Your task to perform on an android device: Open eBay Image 0: 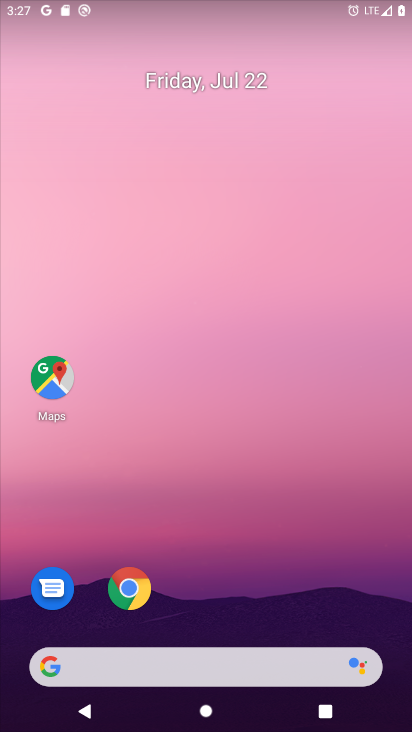
Step 0: drag from (234, 577) to (205, 5)
Your task to perform on an android device: Open eBay Image 1: 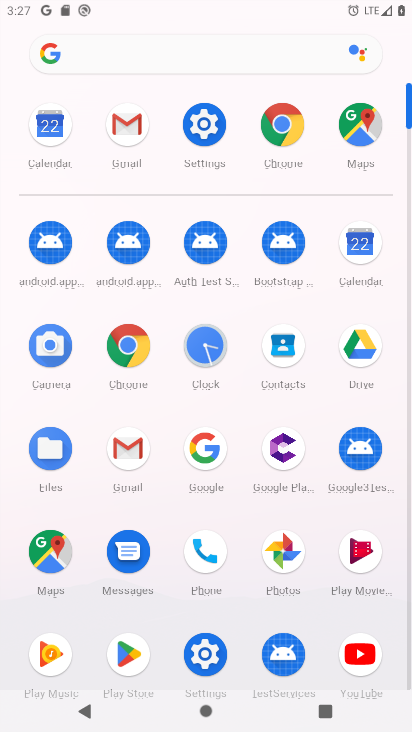
Step 1: click (127, 342)
Your task to perform on an android device: Open eBay Image 2: 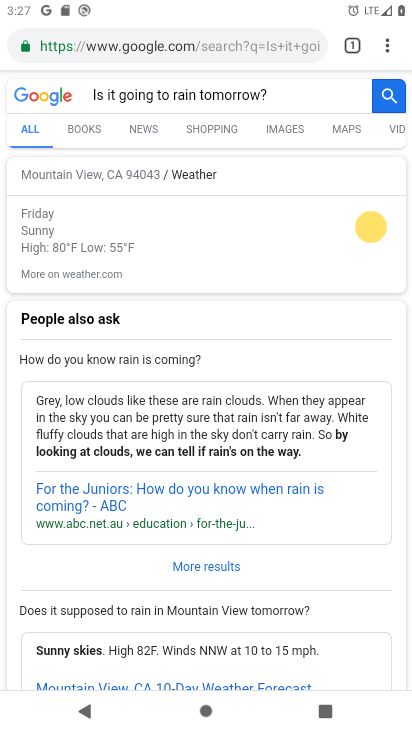
Step 2: click (130, 39)
Your task to perform on an android device: Open eBay Image 3: 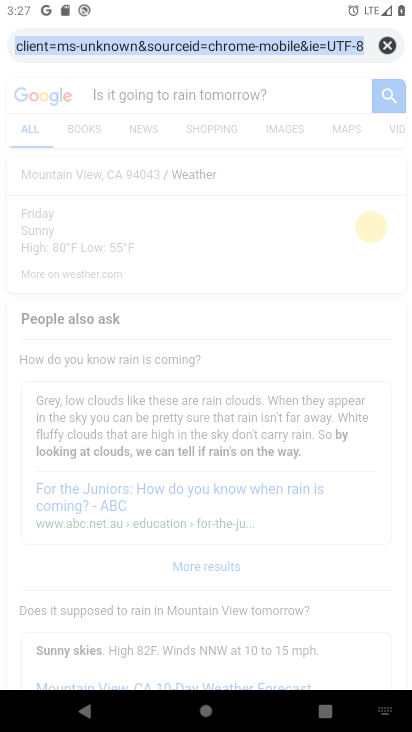
Step 3: click (388, 45)
Your task to perform on an android device: Open eBay Image 4: 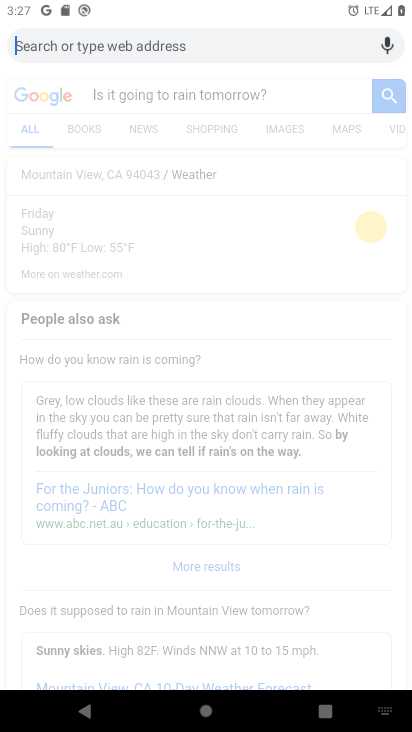
Step 4: type "eBay"
Your task to perform on an android device: Open eBay Image 5: 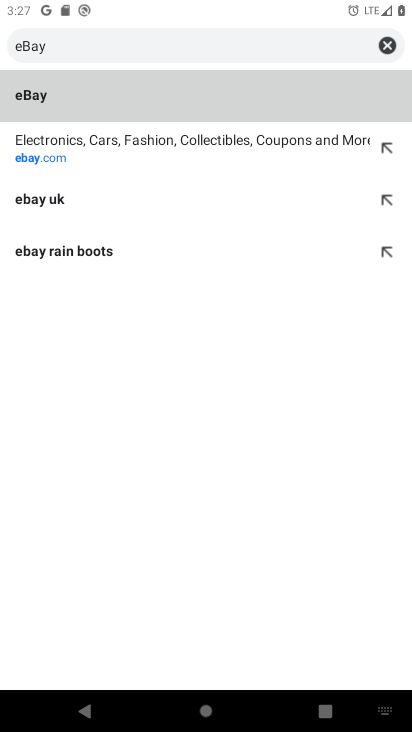
Step 5: click (35, 154)
Your task to perform on an android device: Open eBay Image 6: 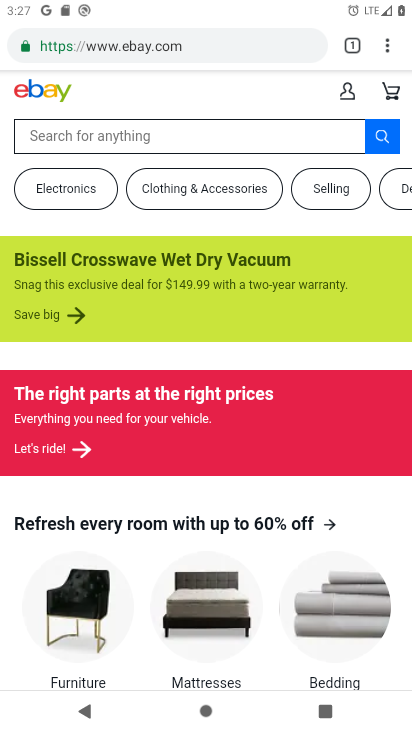
Step 6: task complete